Your task to perform on an android device: Open the calendar app, open the side menu, and click the "Day" option Image 0: 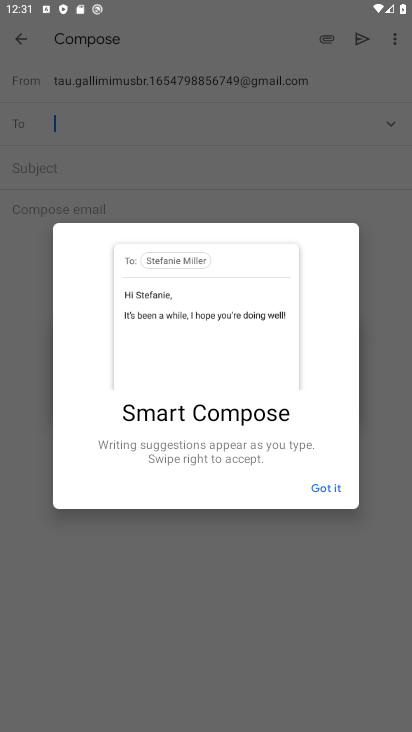
Step 0: press home button
Your task to perform on an android device: Open the calendar app, open the side menu, and click the "Day" option Image 1: 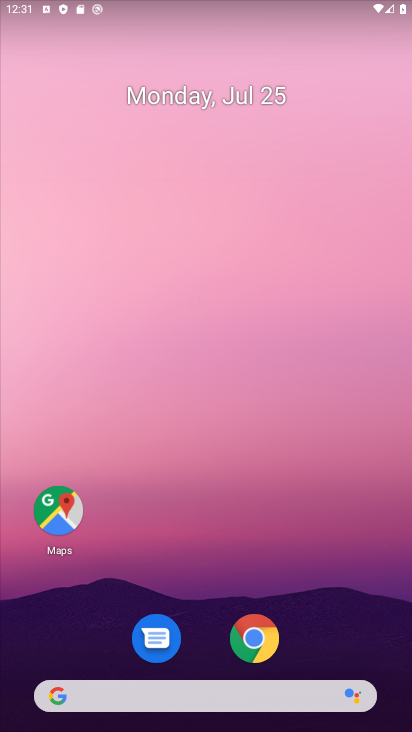
Step 1: click (185, 102)
Your task to perform on an android device: Open the calendar app, open the side menu, and click the "Day" option Image 2: 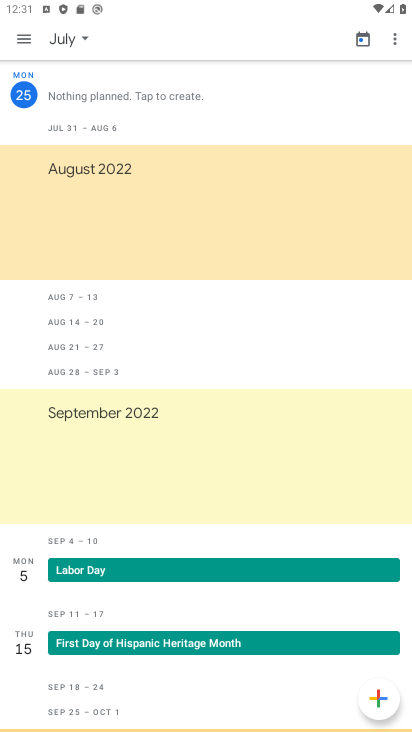
Step 2: click (31, 45)
Your task to perform on an android device: Open the calendar app, open the side menu, and click the "Day" option Image 3: 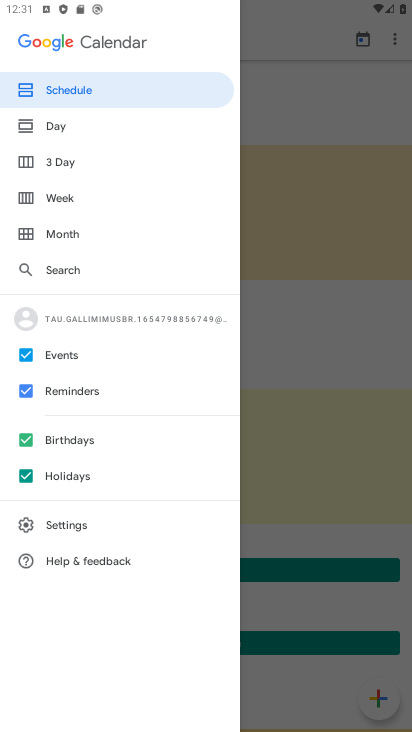
Step 3: click (57, 168)
Your task to perform on an android device: Open the calendar app, open the side menu, and click the "Day" option Image 4: 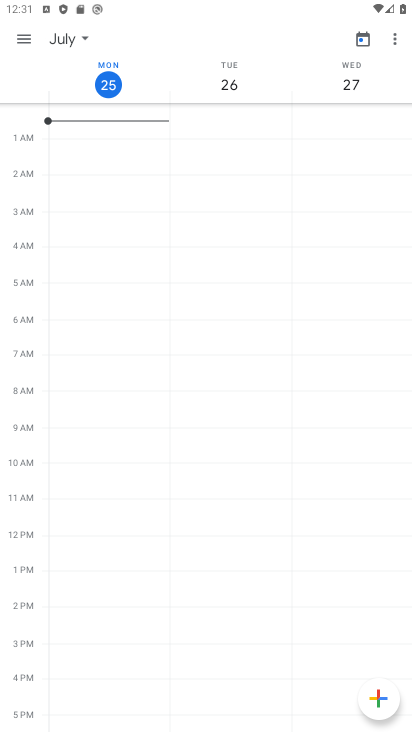
Step 4: task complete